Your task to perform on an android device: make emails show in primary in the gmail app Image 0: 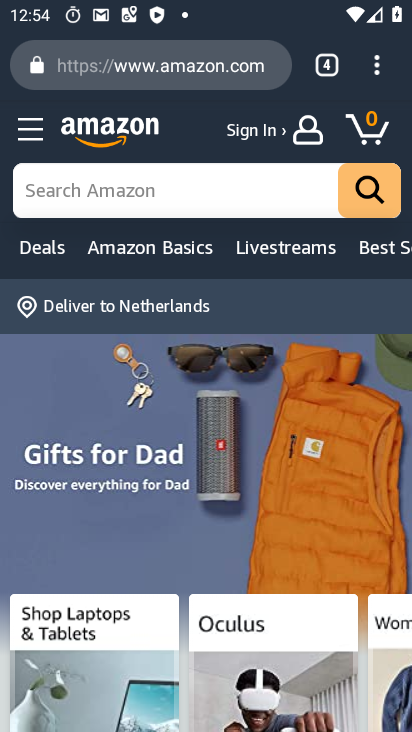
Step 0: press home button
Your task to perform on an android device: make emails show in primary in the gmail app Image 1: 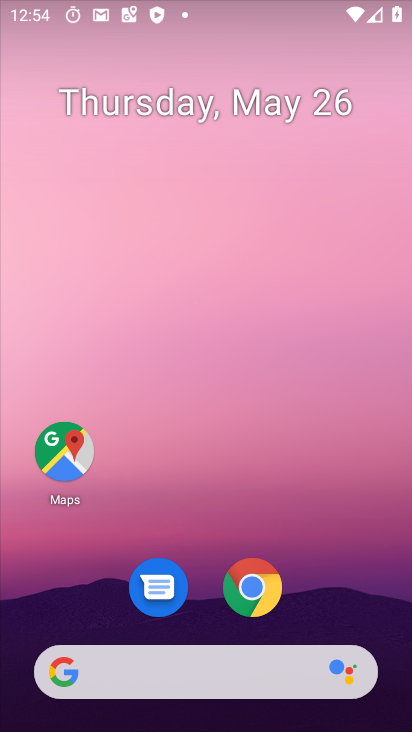
Step 1: drag from (315, 667) to (235, 125)
Your task to perform on an android device: make emails show in primary in the gmail app Image 2: 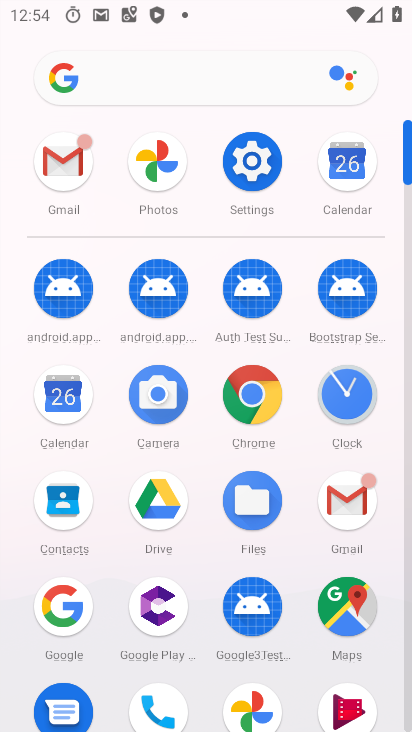
Step 2: click (76, 178)
Your task to perform on an android device: make emails show in primary in the gmail app Image 3: 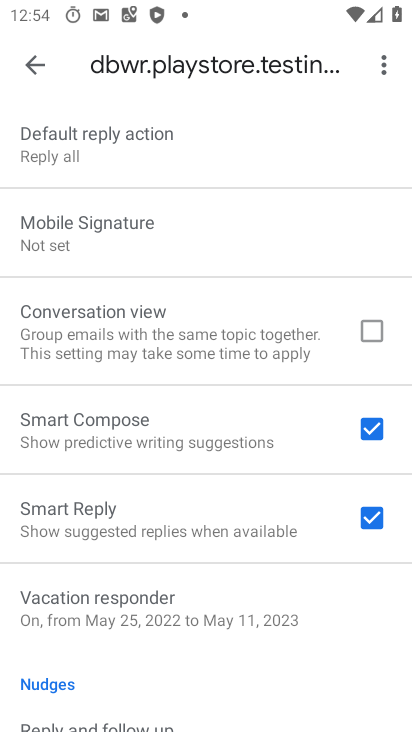
Step 3: drag from (96, 187) to (168, 606)
Your task to perform on an android device: make emails show in primary in the gmail app Image 4: 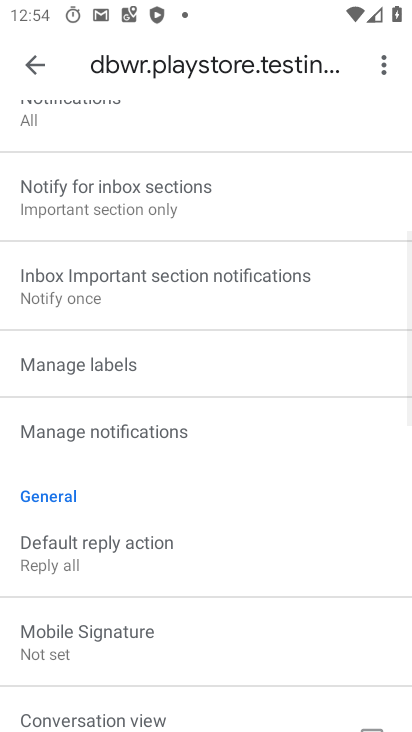
Step 4: drag from (131, 279) to (186, 567)
Your task to perform on an android device: make emails show in primary in the gmail app Image 5: 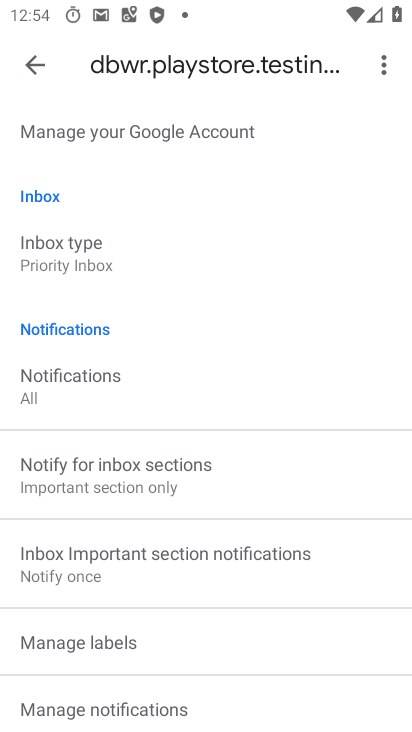
Step 5: drag from (120, 259) to (111, 365)
Your task to perform on an android device: make emails show in primary in the gmail app Image 6: 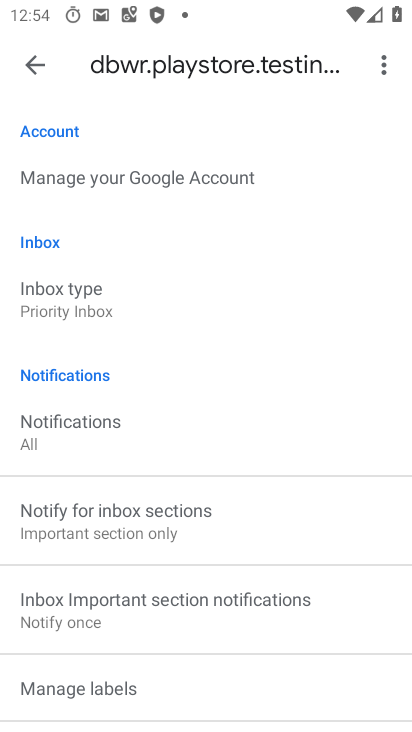
Step 6: click (88, 295)
Your task to perform on an android device: make emails show in primary in the gmail app Image 7: 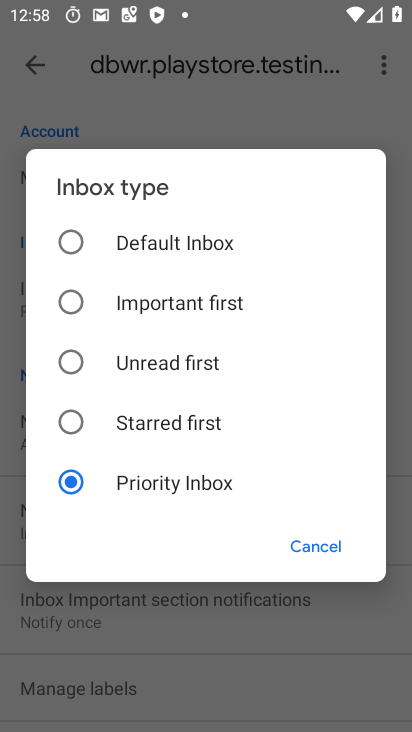
Step 7: task complete